Your task to perform on an android device: turn off location Image 0: 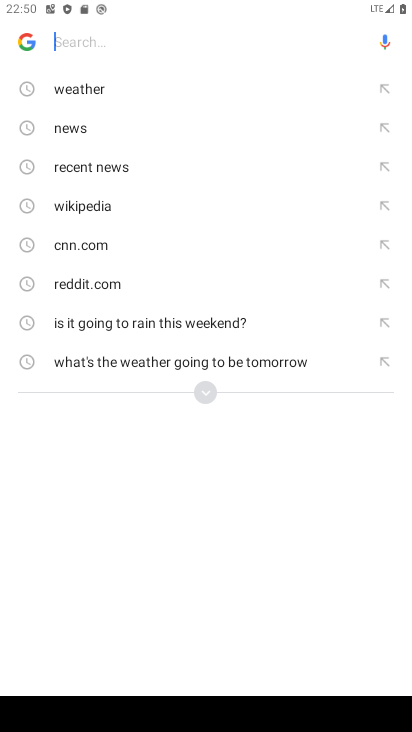
Step 0: press home button
Your task to perform on an android device: turn off location Image 1: 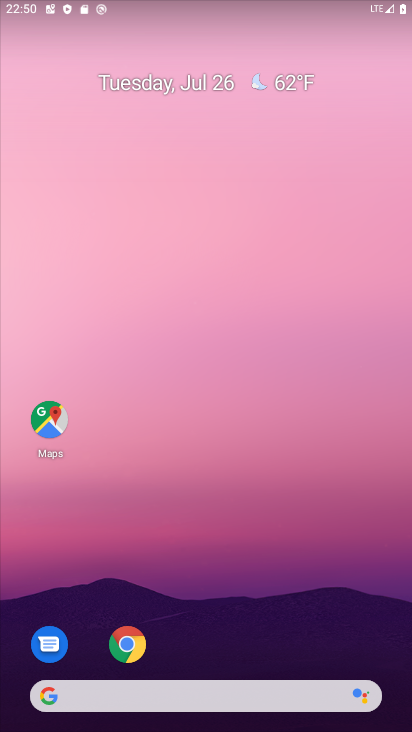
Step 1: drag from (237, 677) to (238, 84)
Your task to perform on an android device: turn off location Image 2: 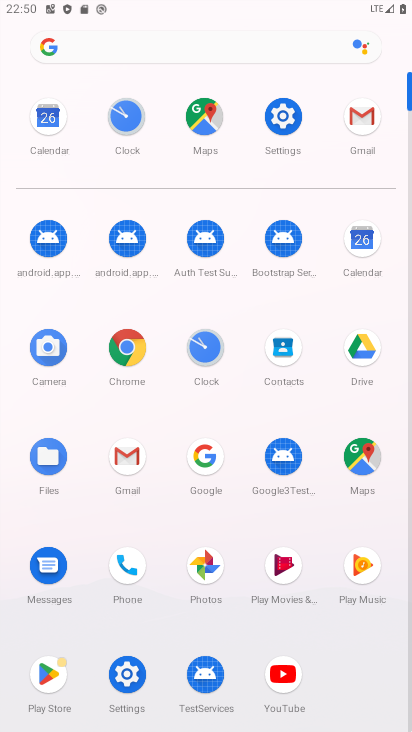
Step 2: click (274, 123)
Your task to perform on an android device: turn off location Image 3: 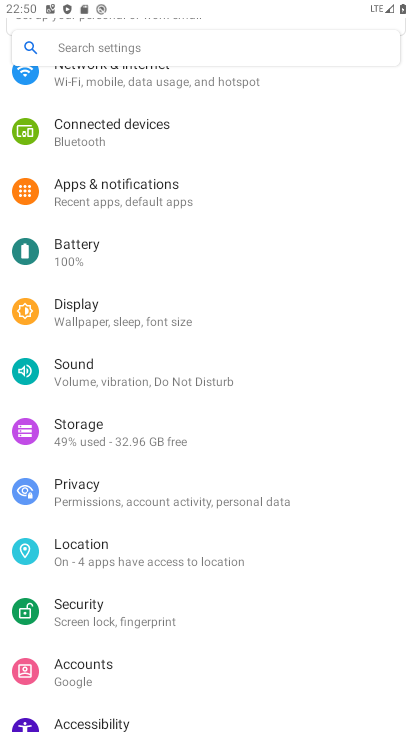
Step 3: click (72, 556)
Your task to perform on an android device: turn off location Image 4: 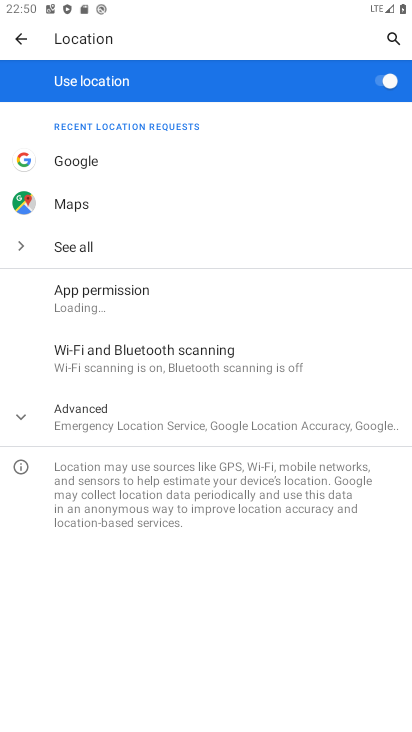
Step 4: click (392, 80)
Your task to perform on an android device: turn off location Image 5: 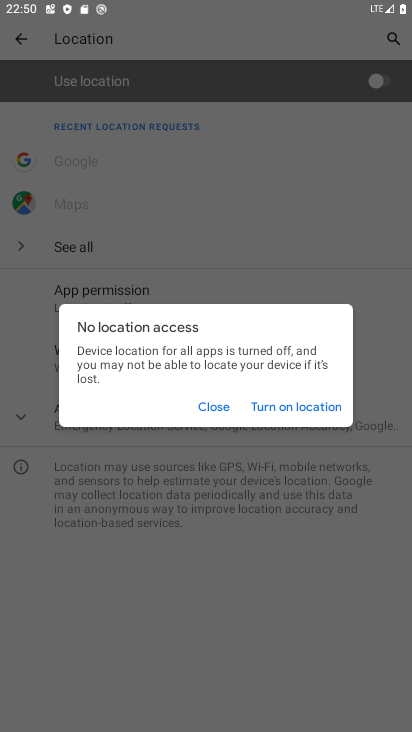
Step 5: task complete